Your task to perform on an android device: Open the stopwatch Image 0: 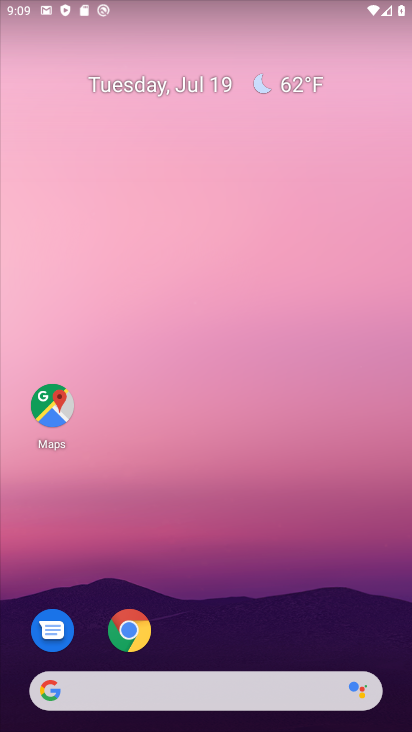
Step 0: click (23, 709)
Your task to perform on an android device: Open the stopwatch Image 1: 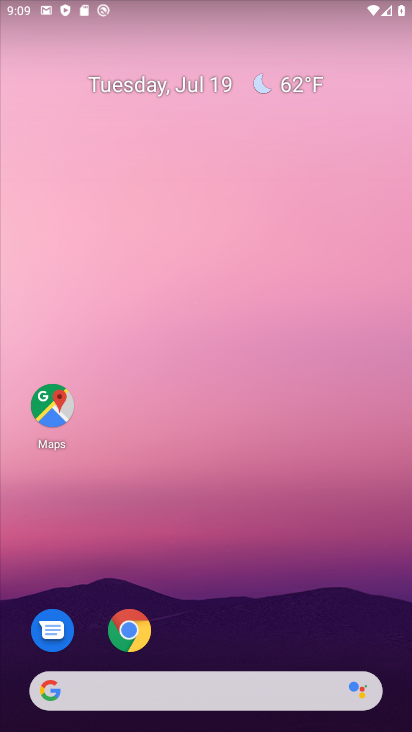
Step 1: drag from (83, 587) to (224, 142)
Your task to perform on an android device: Open the stopwatch Image 2: 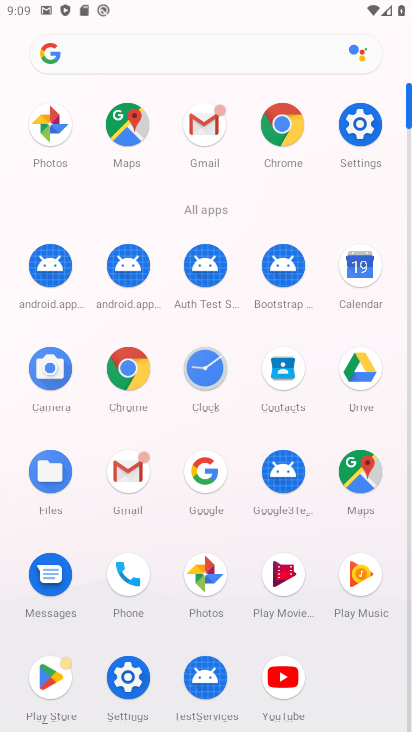
Step 2: click (215, 393)
Your task to perform on an android device: Open the stopwatch Image 3: 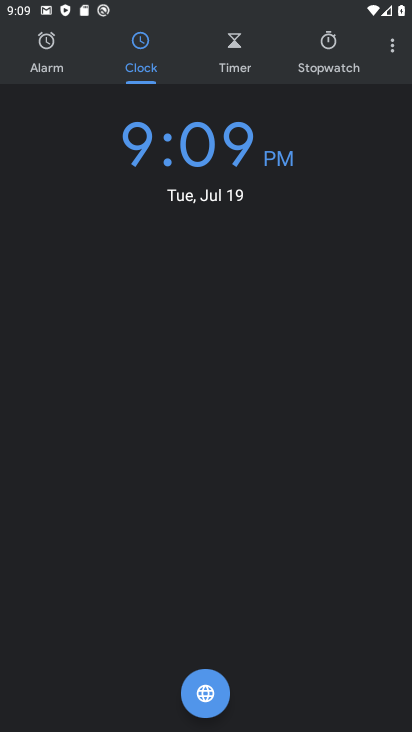
Step 3: click (316, 64)
Your task to perform on an android device: Open the stopwatch Image 4: 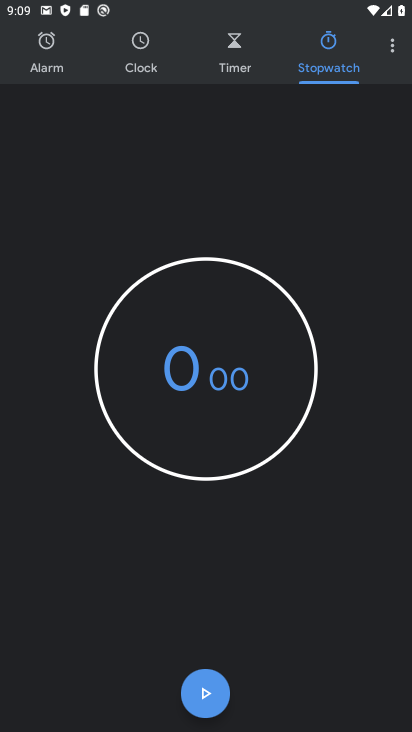
Step 4: click (206, 693)
Your task to perform on an android device: Open the stopwatch Image 5: 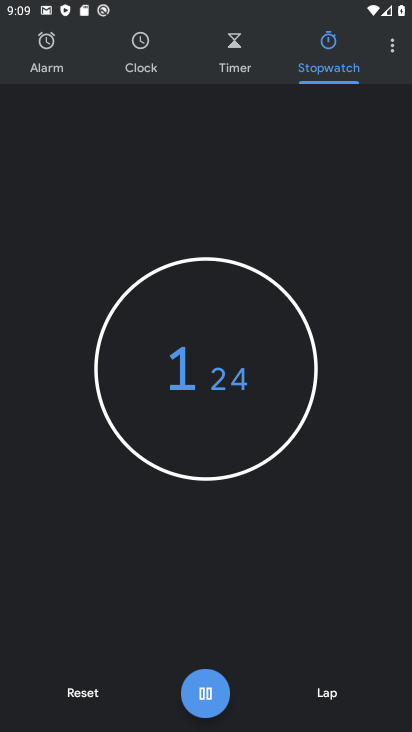
Step 5: click (199, 686)
Your task to perform on an android device: Open the stopwatch Image 6: 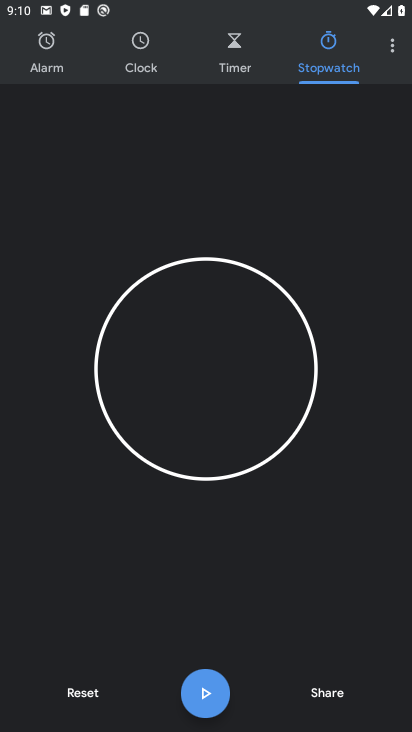
Step 6: task complete